Your task to perform on an android device: turn off improve location accuracy Image 0: 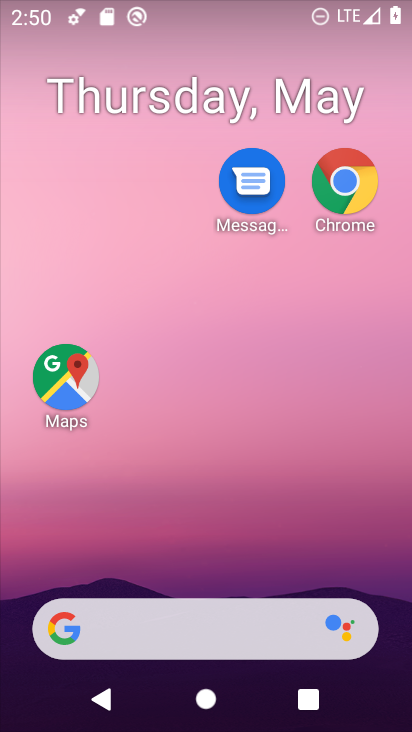
Step 0: drag from (322, 621) to (327, 53)
Your task to perform on an android device: turn off improve location accuracy Image 1: 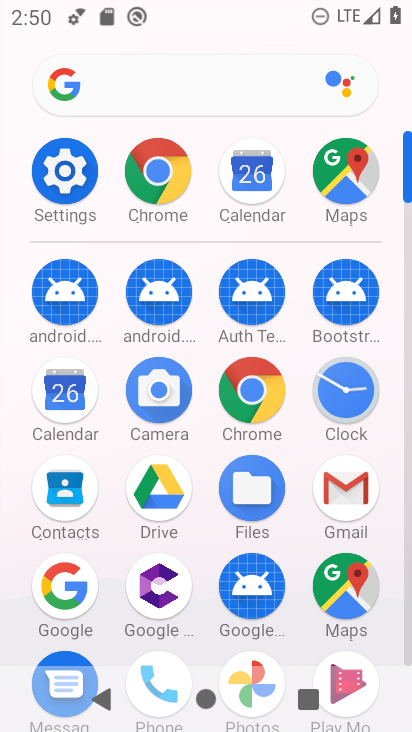
Step 1: click (70, 174)
Your task to perform on an android device: turn off improve location accuracy Image 2: 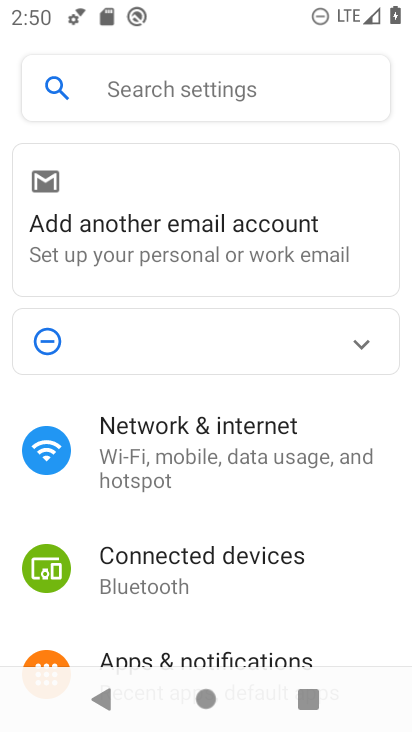
Step 2: drag from (221, 606) to (242, 71)
Your task to perform on an android device: turn off improve location accuracy Image 3: 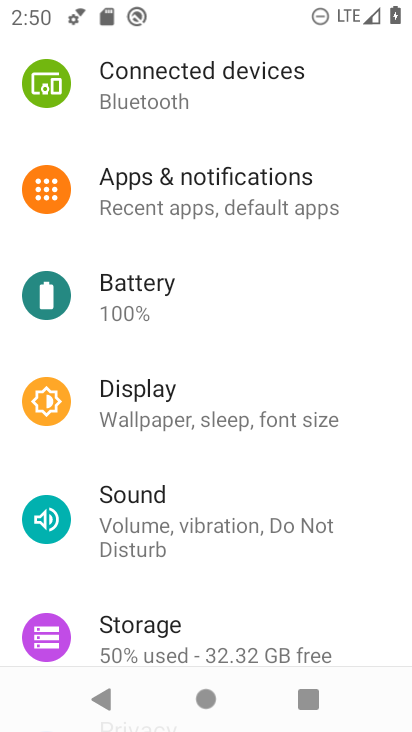
Step 3: drag from (214, 581) to (286, 114)
Your task to perform on an android device: turn off improve location accuracy Image 4: 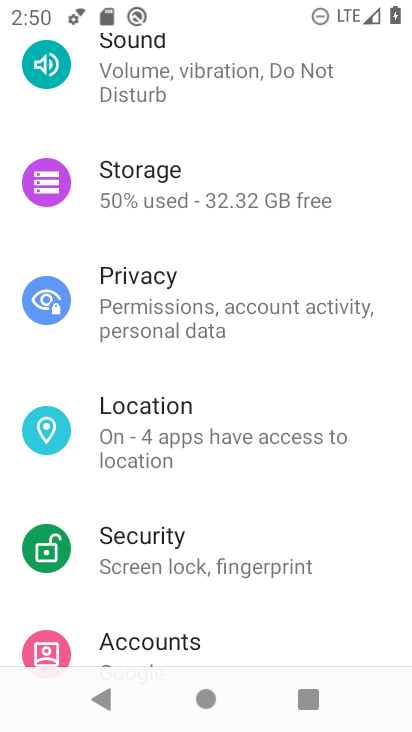
Step 4: click (222, 407)
Your task to perform on an android device: turn off improve location accuracy Image 5: 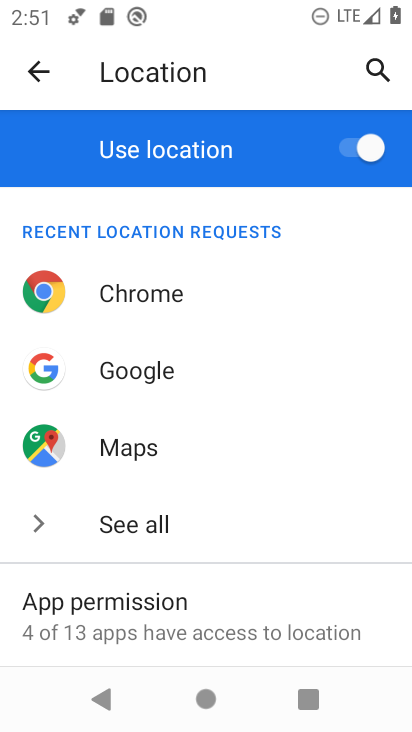
Step 5: drag from (195, 590) to (258, 119)
Your task to perform on an android device: turn off improve location accuracy Image 6: 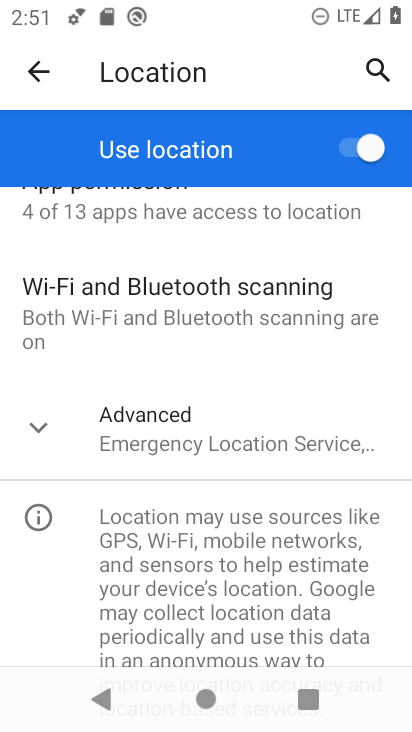
Step 6: click (184, 469)
Your task to perform on an android device: turn off improve location accuracy Image 7: 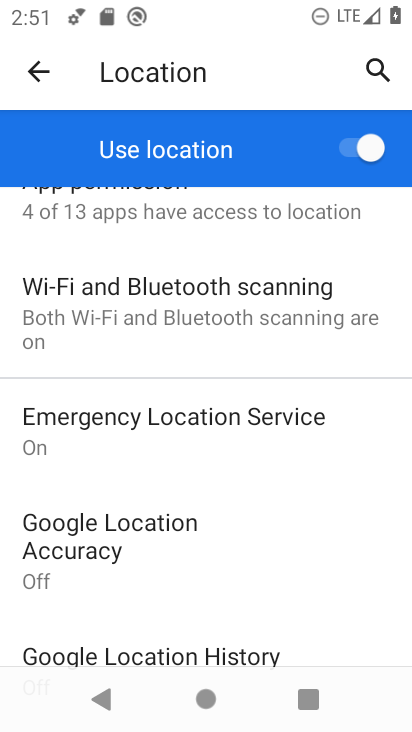
Step 7: click (191, 549)
Your task to perform on an android device: turn off improve location accuracy Image 8: 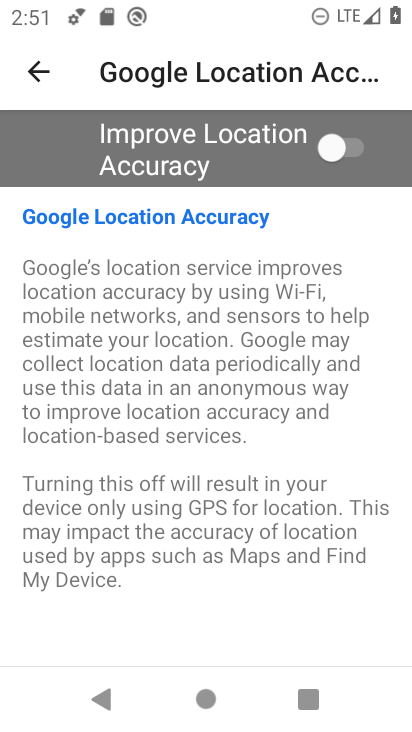
Step 8: task complete